Your task to perform on an android device: add a contact Image 0: 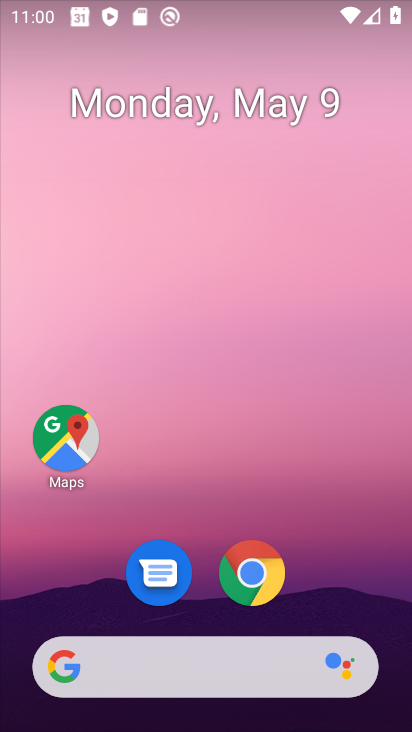
Step 0: drag from (204, 592) to (288, 125)
Your task to perform on an android device: add a contact Image 1: 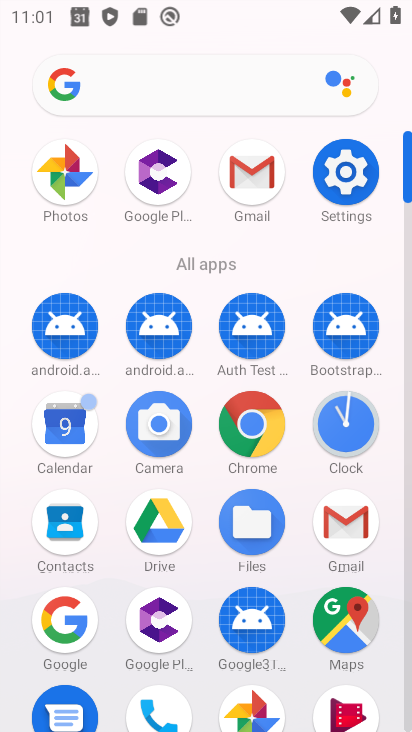
Step 1: click (76, 521)
Your task to perform on an android device: add a contact Image 2: 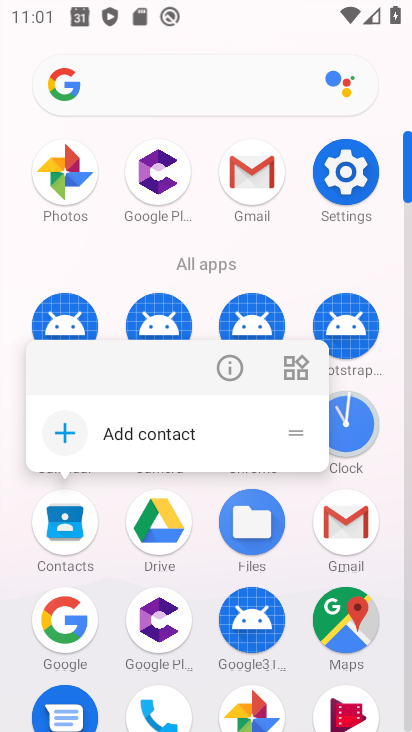
Step 2: click (226, 360)
Your task to perform on an android device: add a contact Image 3: 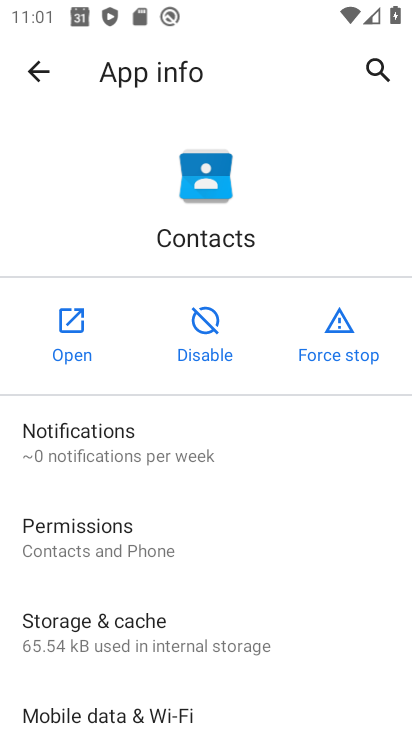
Step 3: click (71, 337)
Your task to perform on an android device: add a contact Image 4: 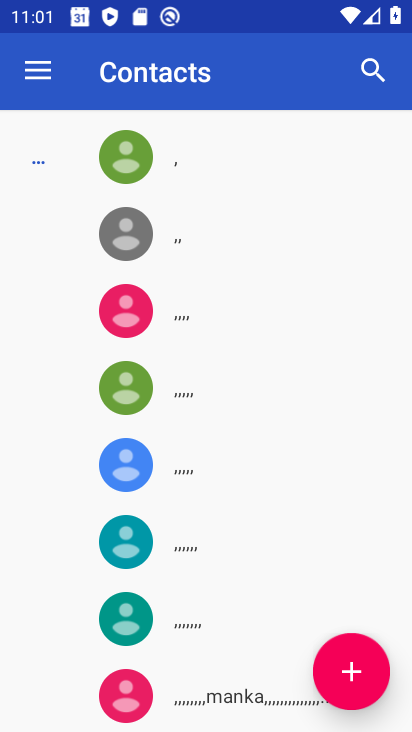
Step 4: click (360, 647)
Your task to perform on an android device: add a contact Image 5: 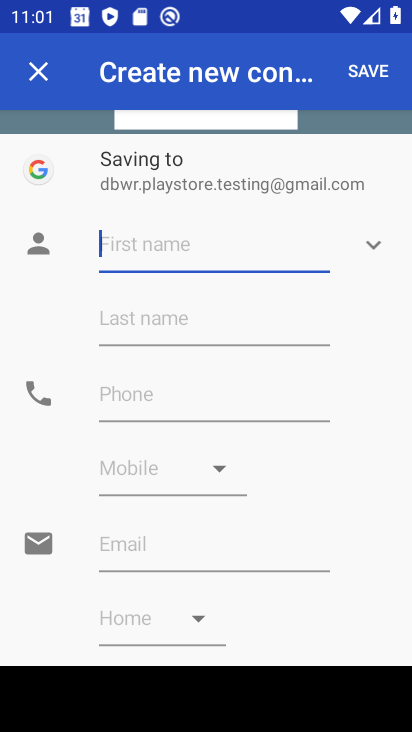
Step 5: type "oook"
Your task to perform on an android device: add a contact Image 6: 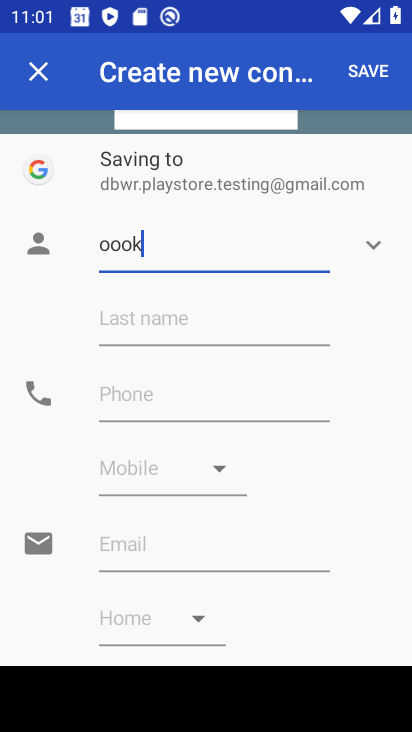
Step 6: click (383, 71)
Your task to perform on an android device: add a contact Image 7: 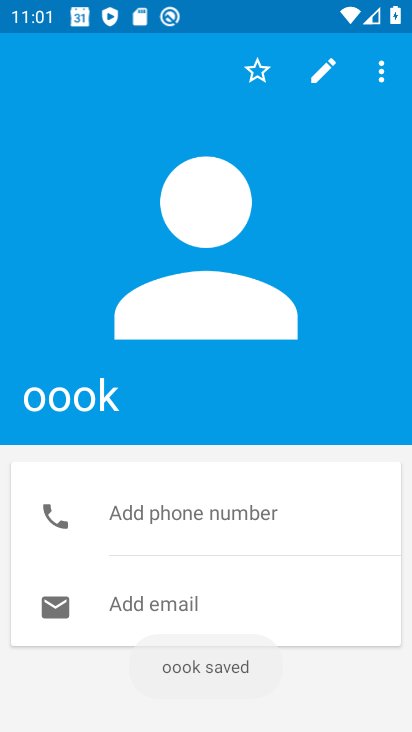
Step 7: task complete